Your task to perform on an android device: Go to network settings Image 0: 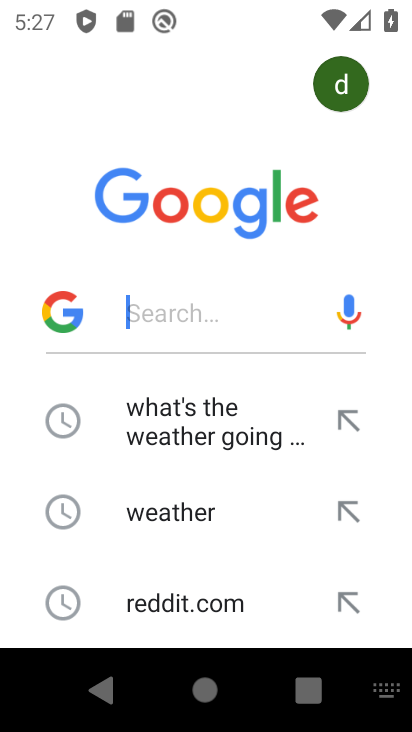
Step 0: press home button
Your task to perform on an android device: Go to network settings Image 1: 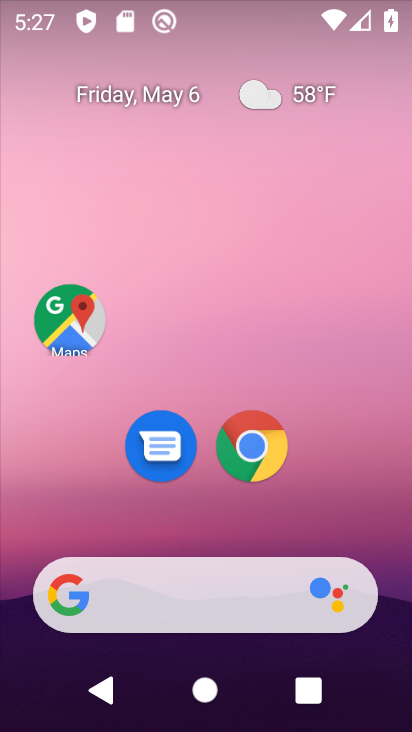
Step 1: drag from (323, 516) to (190, 68)
Your task to perform on an android device: Go to network settings Image 2: 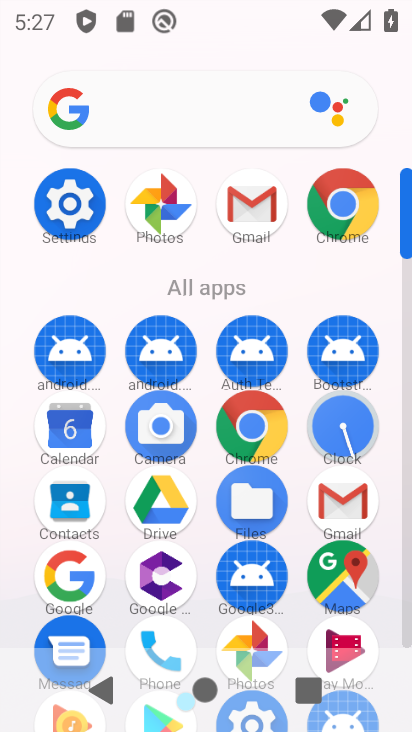
Step 2: click (53, 210)
Your task to perform on an android device: Go to network settings Image 3: 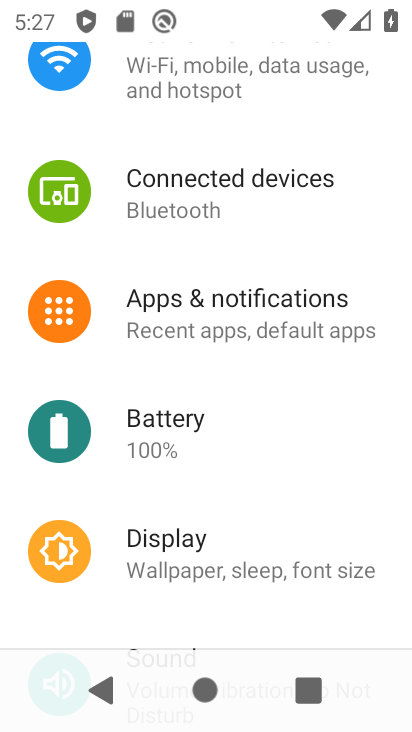
Step 3: drag from (208, 224) to (294, 724)
Your task to perform on an android device: Go to network settings Image 4: 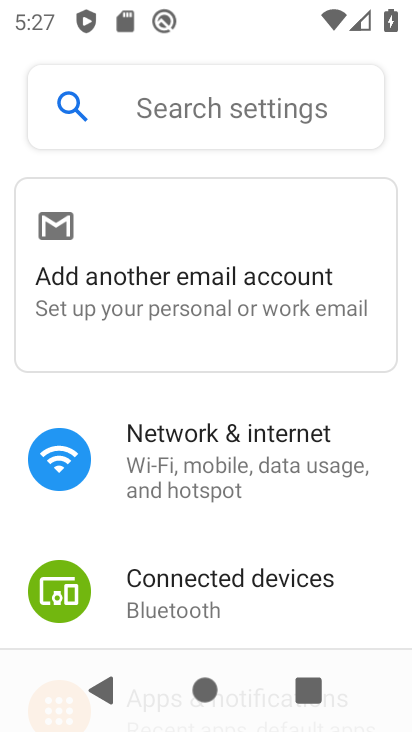
Step 4: click (239, 452)
Your task to perform on an android device: Go to network settings Image 5: 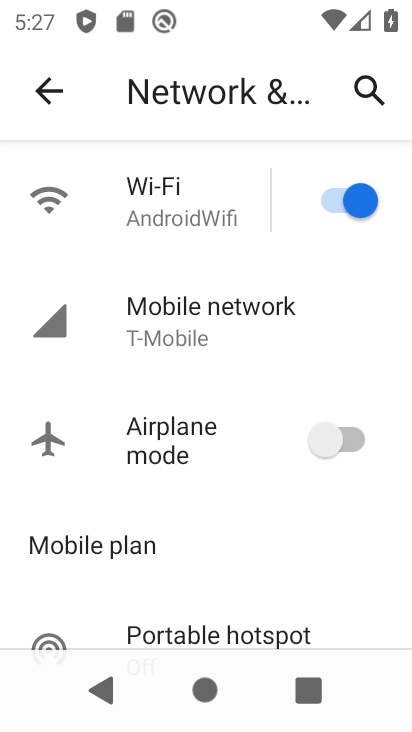
Step 5: click (199, 304)
Your task to perform on an android device: Go to network settings Image 6: 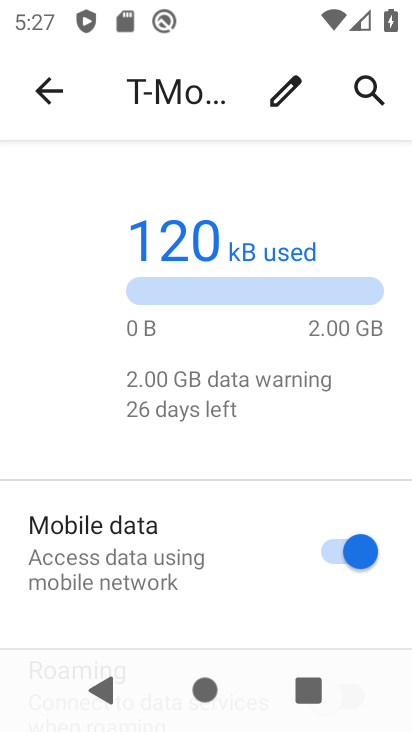
Step 6: task complete